Your task to perform on an android device: set default search engine in the chrome app Image 0: 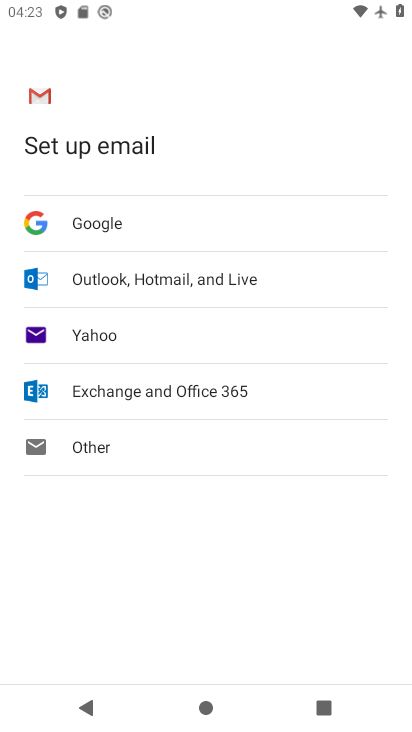
Step 0: press home button
Your task to perform on an android device: set default search engine in the chrome app Image 1: 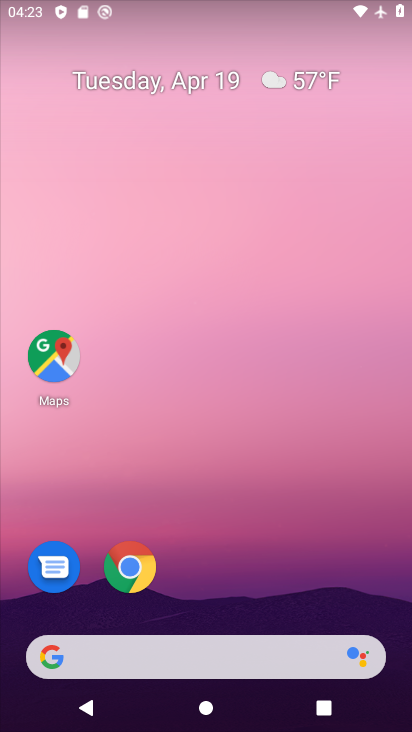
Step 1: drag from (366, 597) to (371, 149)
Your task to perform on an android device: set default search engine in the chrome app Image 2: 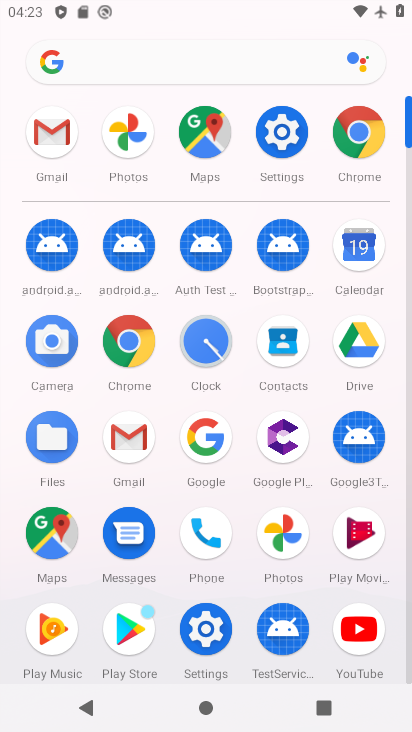
Step 2: click (135, 356)
Your task to perform on an android device: set default search engine in the chrome app Image 3: 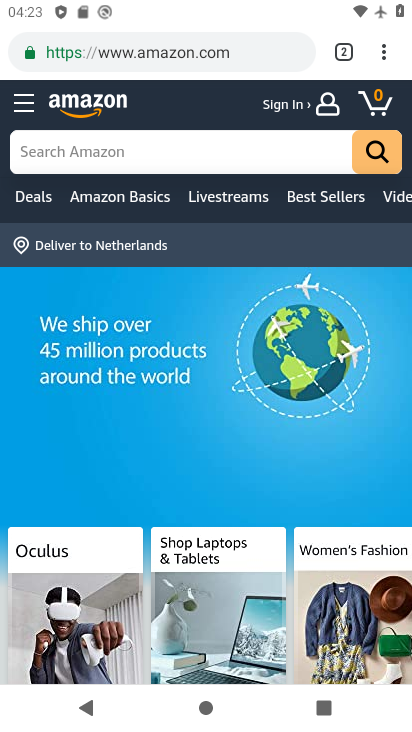
Step 3: click (383, 50)
Your task to perform on an android device: set default search engine in the chrome app Image 4: 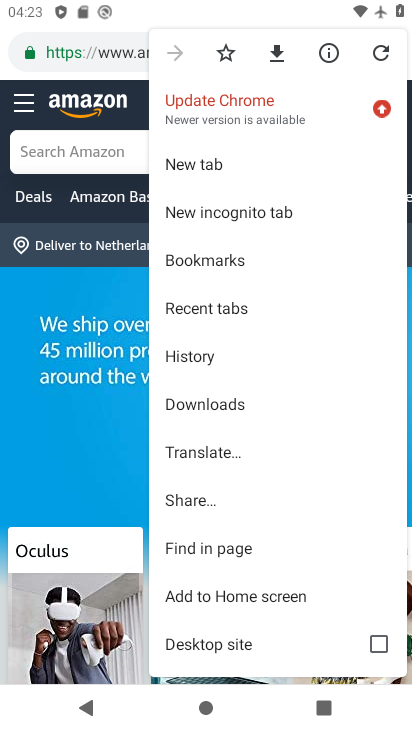
Step 4: drag from (366, 501) to (366, 412)
Your task to perform on an android device: set default search engine in the chrome app Image 5: 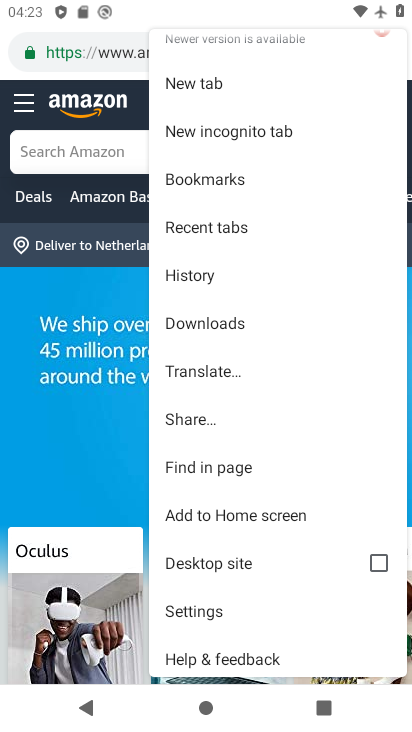
Step 5: click (217, 617)
Your task to perform on an android device: set default search engine in the chrome app Image 6: 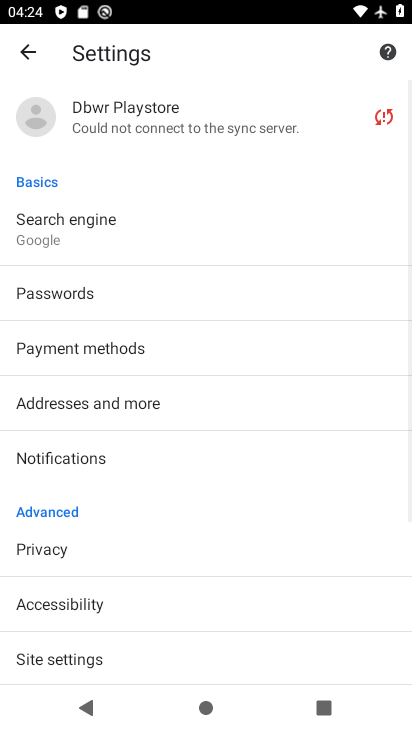
Step 6: drag from (253, 608) to (267, 491)
Your task to perform on an android device: set default search engine in the chrome app Image 7: 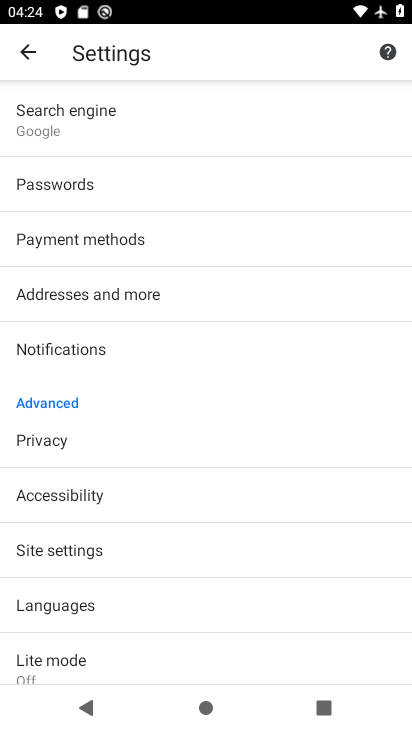
Step 7: drag from (279, 587) to (296, 459)
Your task to perform on an android device: set default search engine in the chrome app Image 8: 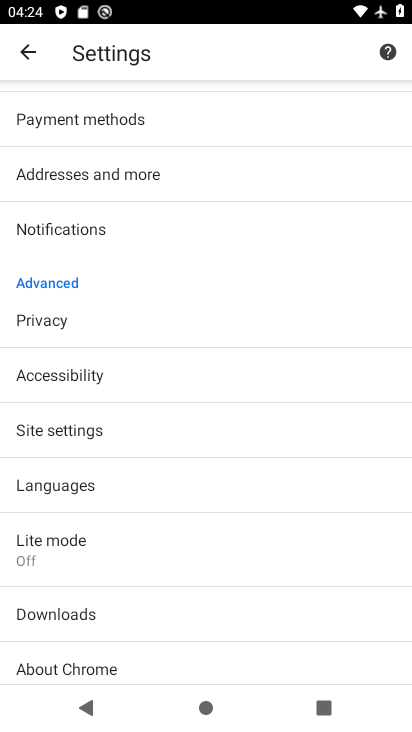
Step 8: drag from (281, 610) to (288, 461)
Your task to perform on an android device: set default search engine in the chrome app Image 9: 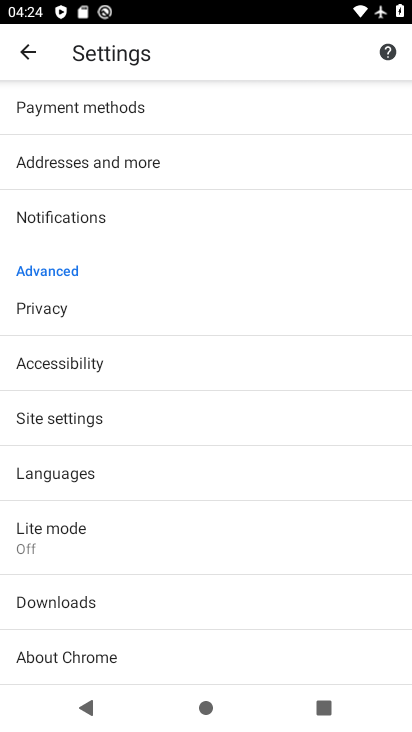
Step 9: drag from (303, 382) to (303, 488)
Your task to perform on an android device: set default search engine in the chrome app Image 10: 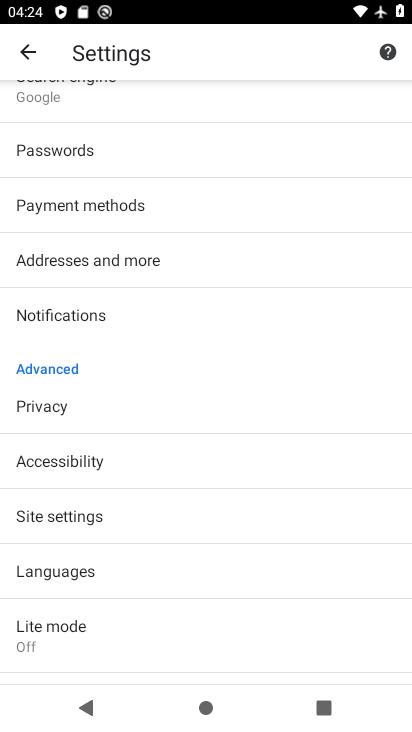
Step 10: drag from (303, 386) to (294, 511)
Your task to perform on an android device: set default search engine in the chrome app Image 11: 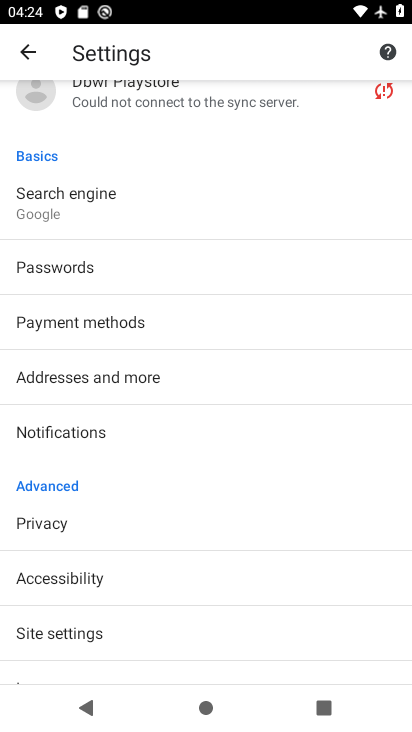
Step 11: drag from (309, 376) to (307, 475)
Your task to perform on an android device: set default search engine in the chrome app Image 12: 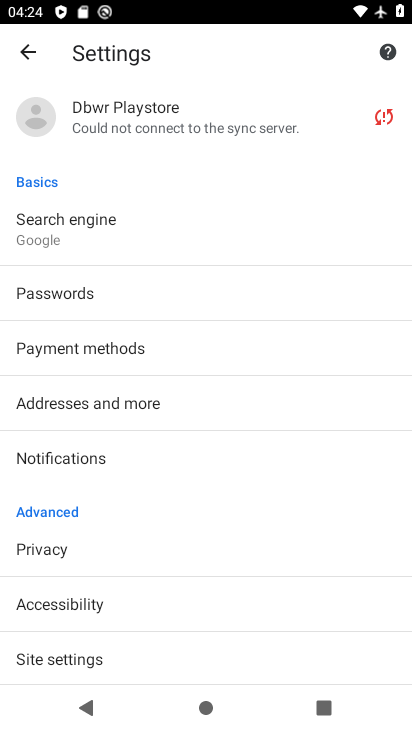
Step 12: click (188, 236)
Your task to perform on an android device: set default search engine in the chrome app Image 13: 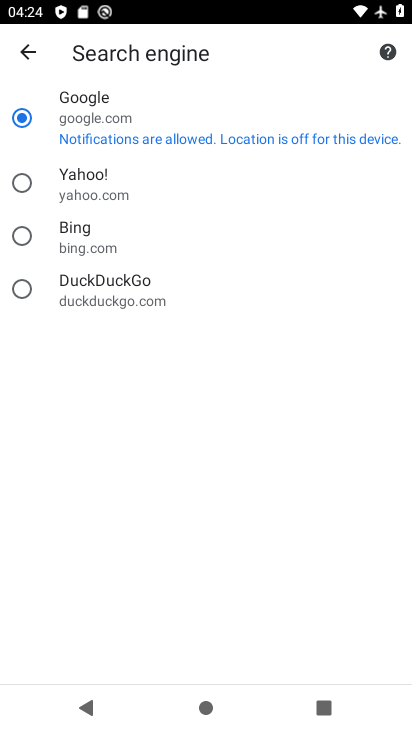
Step 13: click (16, 238)
Your task to perform on an android device: set default search engine in the chrome app Image 14: 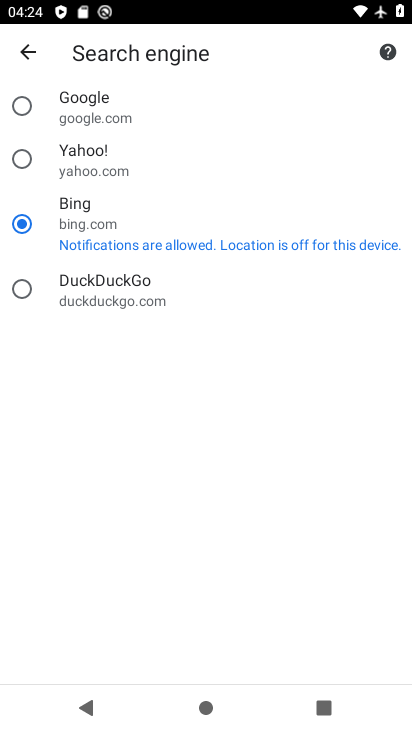
Step 14: task complete